Your task to perform on an android device: turn off translation in the chrome app Image 0: 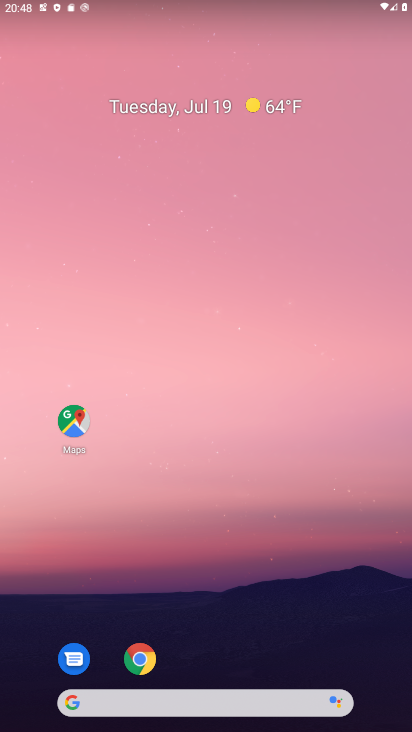
Step 0: click (153, 659)
Your task to perform on an android device: turn off translation in the chrome app Image 1: 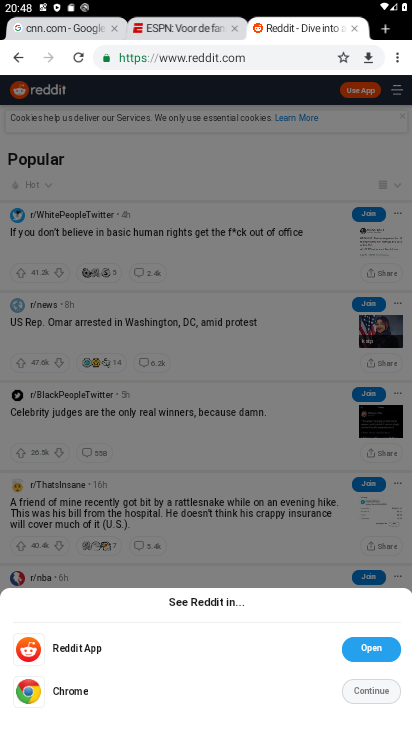
Step 1: click (388, 61)
Your task to perform on an android device: turn off translation in the chrome app Image 2: 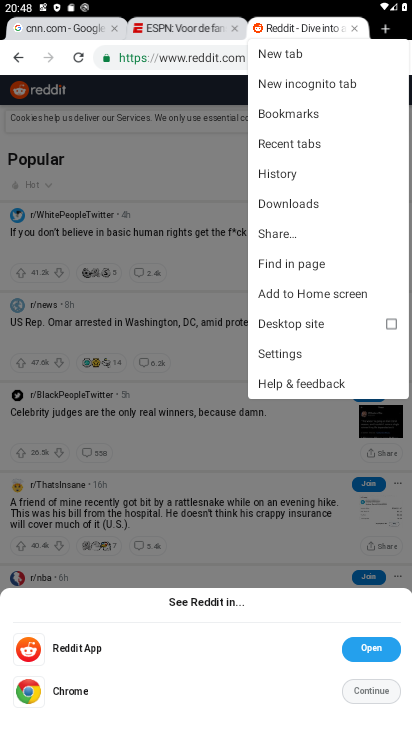
Step 2: click (320, 359)
Your task to perform on an android device: turn off translation in the chrome app Image 3: 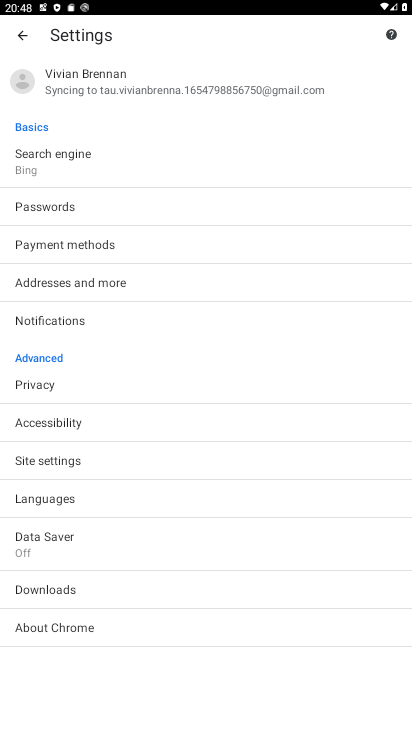
Step 3: click (74, 490)
Your task to perform on an android device: turn off translation in the chrome app Image 4: 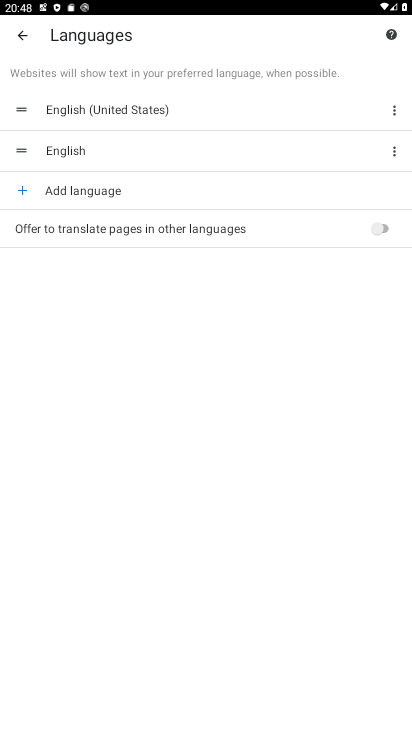
Step 4: task complete